Your task to perform on an android device: open app "Upside-Cash back on gas & food" (install if not already installed) Image 0: 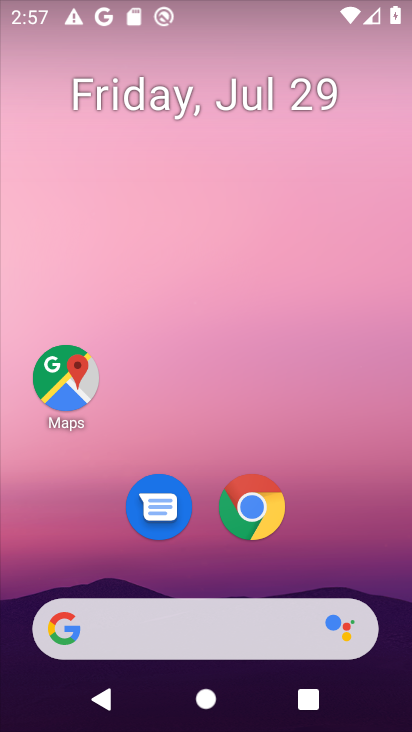
Step 0: click (263, 635)
Your task to perform on an android device: open app "Upside-Cash back on gas & food" (install if not already installed) Image 1: 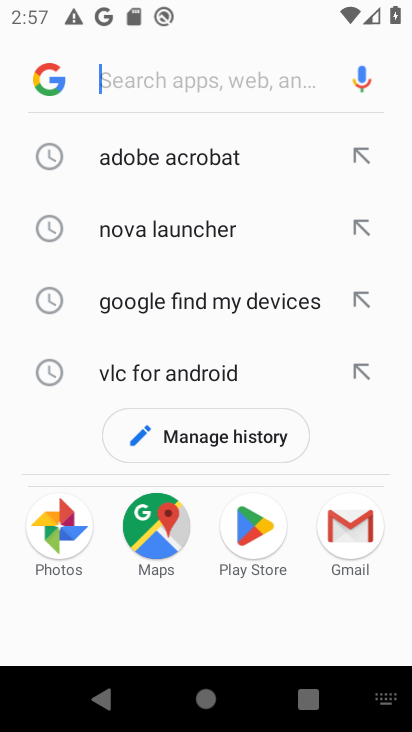
Step 1: click (167, 638)
Your task to perform on an android device: open app "Upside-Cash back on gas & food" (install if not already installed) Image 2: 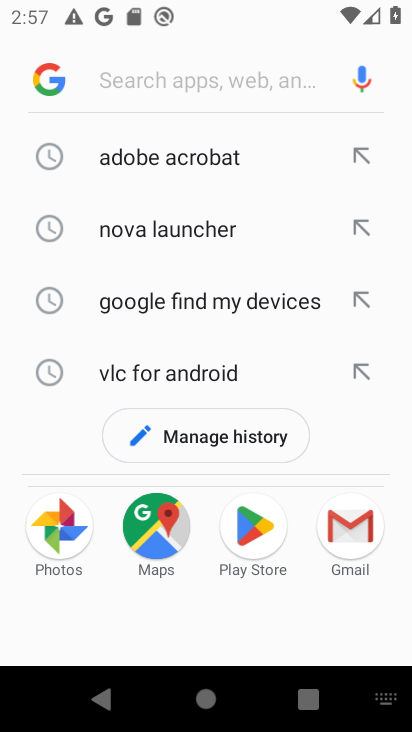
Step 2: click (167, 638)
Your task to perform on an android device: open app "Upside-Cash back on gas & food" (install if not already installed) Image 3: 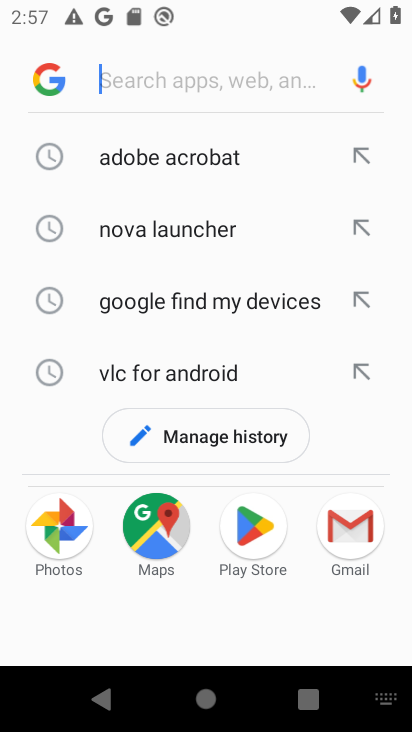
Step 3: click (167, 638)
Your task to perform on an android device: open app "Upside-Cash back on gas & food" (install if not already installed) Image 4: 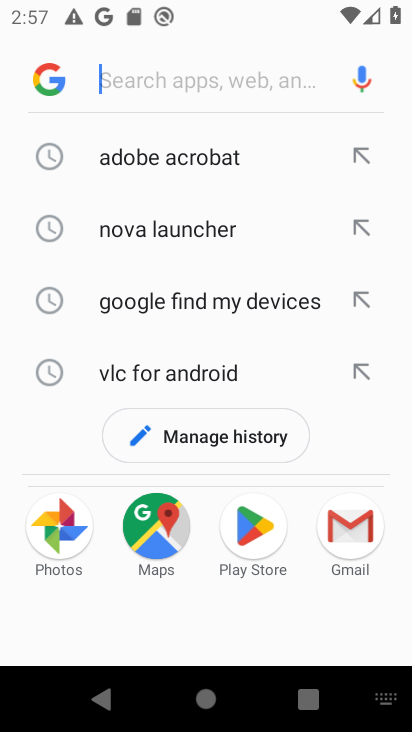
Step 4: click (167, 638)
Your task to perform on an android device: open app "Upside-Cash back on gas & food" (install if not already installed) Image 5: 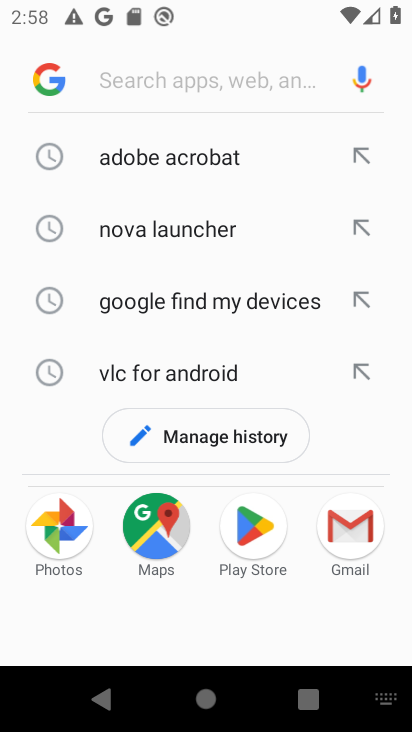
Step 5: type "upside"
Your task to perform on an android device: open app "Upside-Cash back on gas & food" (install if not already installed) Image 6: 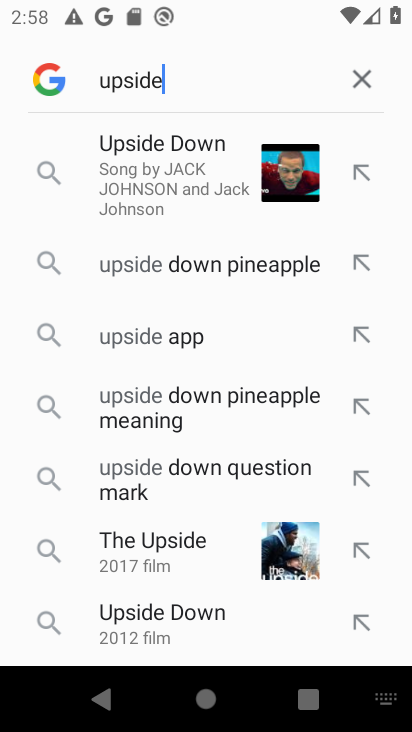
Step 6: click (160, 335)
Your task to perform on an android device: open app "Upside-Cash back on gas & food" (install if not already installed) Image 7: 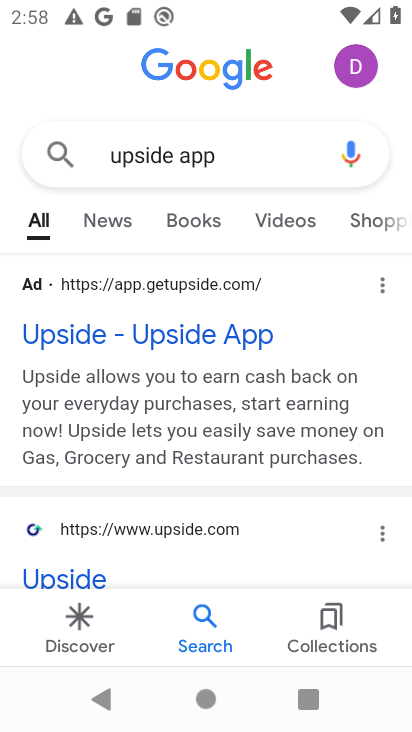
Step 7: drag from (165, 507) to (191, 247)
Your task to perform on an android device: open app "Upside-Cash back on gas & food" (install if not already installed) Image 8: 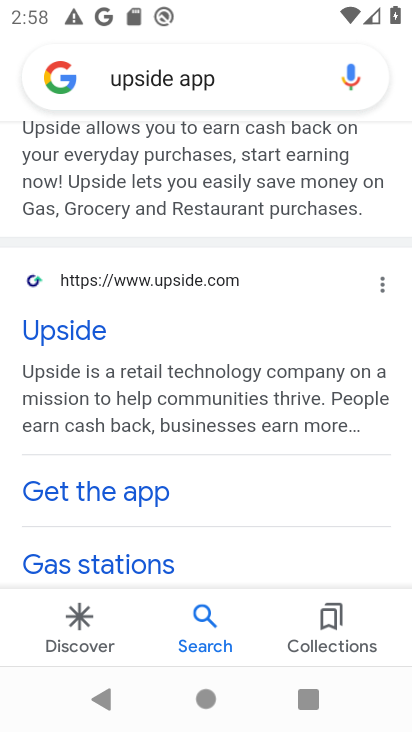
Step 8: click (94, 356)
Your task to perform on an android device: open app "Upside-Cash back on gas & food" (install if not already installed) Image 9: 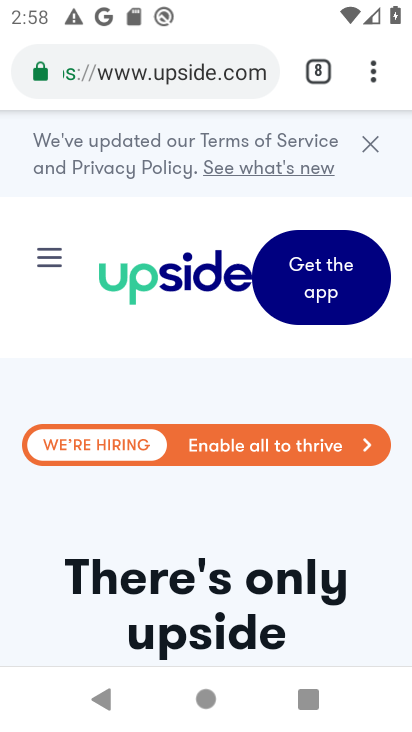
Step 9: task complete